Your task to perform on an android device: make emails show in primary in the gmail app Image 0: 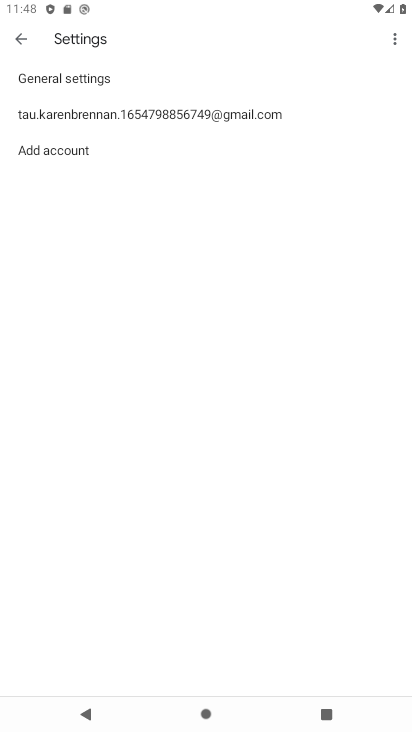
Step 0: press home button
Your task to perform on an android device: make emails show in primary in the gmail app Image 1: 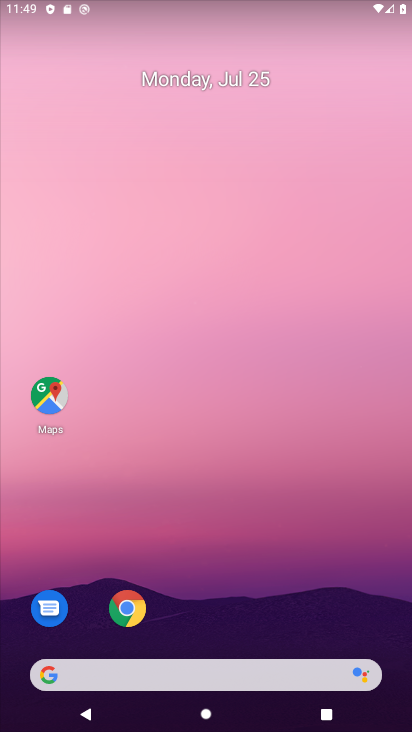
Step 1: drag from (289, 634) to (329, 123)
Your task to perform on an android device: make emails show in primary in the gmail app Image 2: 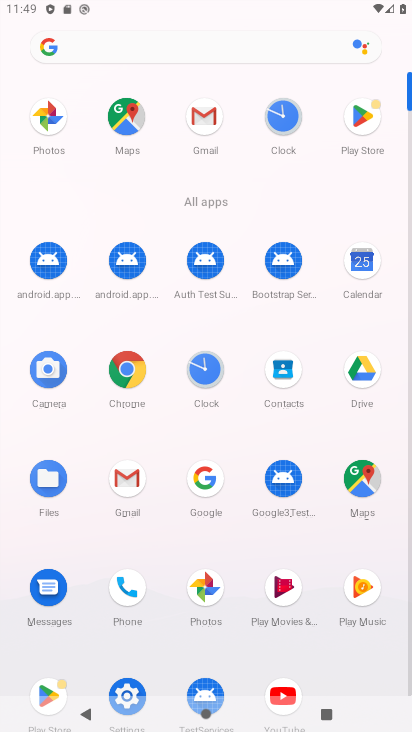
Step 2: click (204, 115)
Your task to perform on an android device: make emails show in primary in the gmail app Image 3: 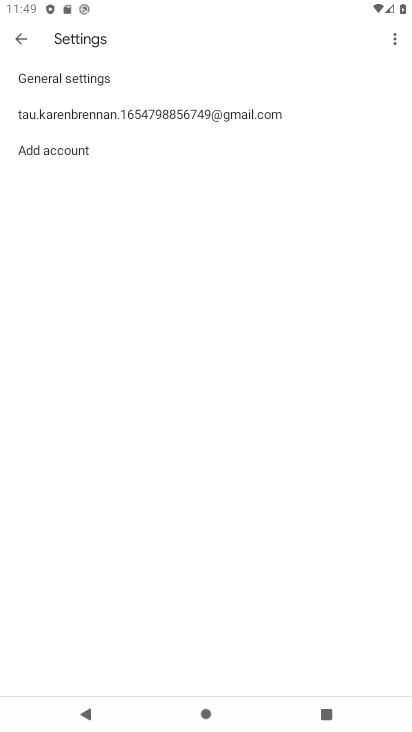
Step 3: click (16, 45)
Your task to perform on an android device: make emails show in primary in the gmail app Image 4: 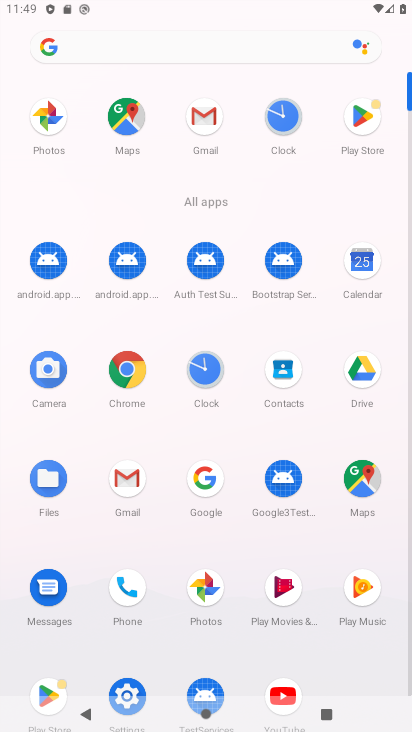
Step 4: click (219, 115)
Your task to perform on an android device: make emails show in primary in the gmail app Image 5: 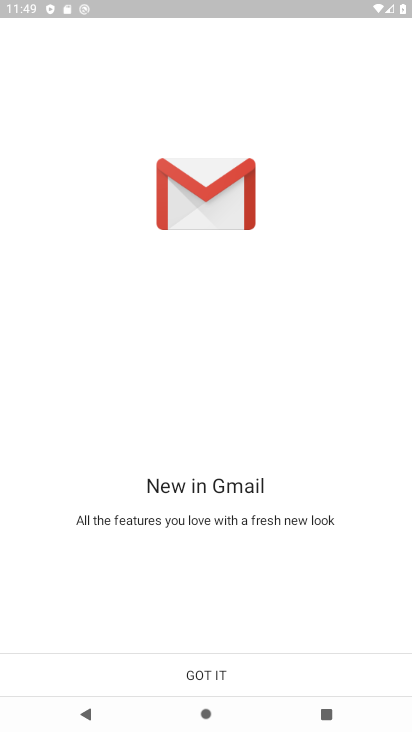
Step 5: click (221, 675)
Your task to perform on an android device: make emails show in primary in the gmail app Image 6: 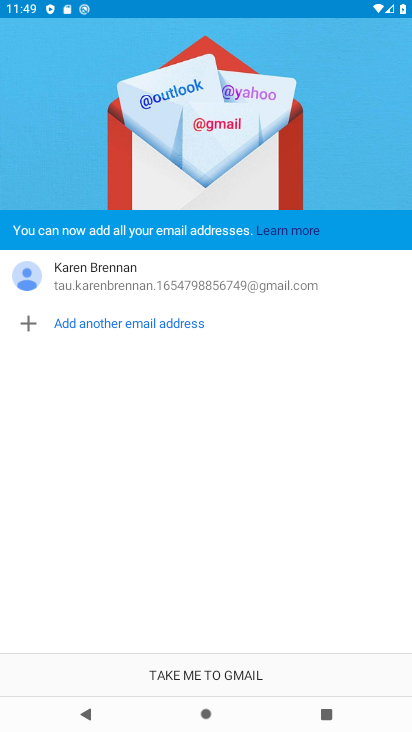
Step 6: click (221, 675)
Your task to perform on an android device: make emails show in primary in the gmail app Image 7: 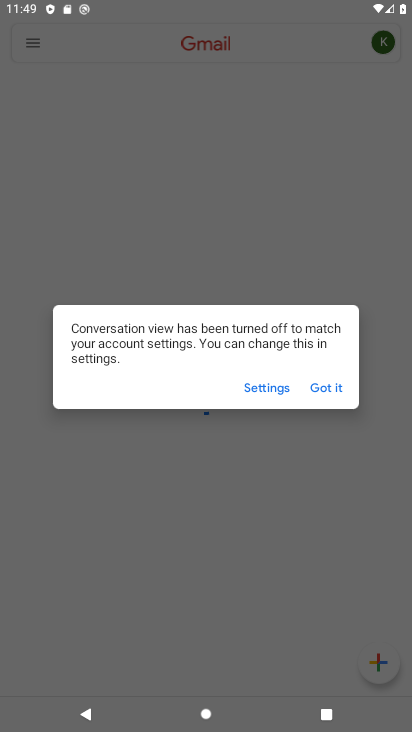
Step 7: click (318, 389)
Your task to perform on an android device: make emails show in primary in the gmail app Image 8: 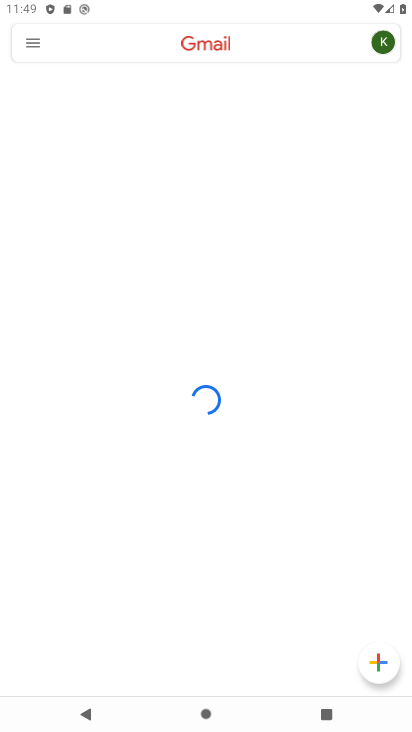
Step 8: task complete